Your task to perform on an android device: What's on my calendar tomorrow? Image 0: 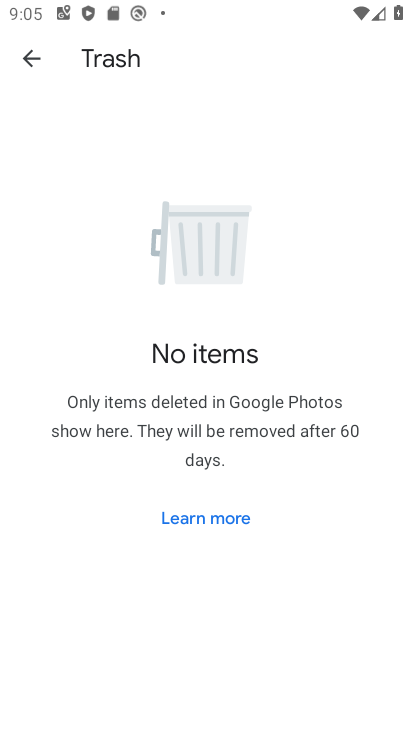
Step 0: press home button
Your task to perform on an android device: What's on my calendar tomorrow? Image 1: 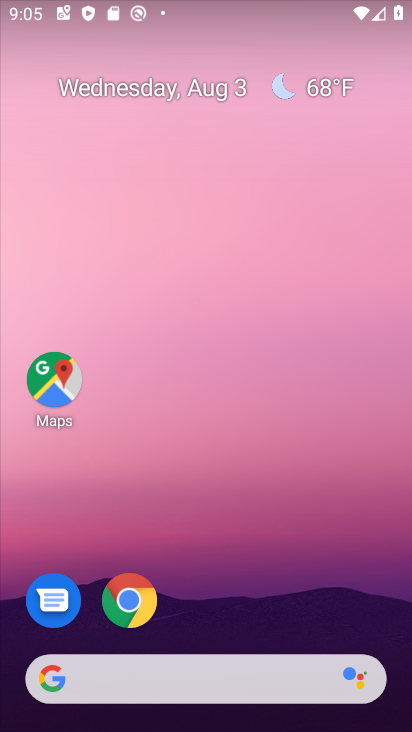
Step 1: drag from (221, 633) to (151, 31)
Your task to perform on an android device: What's on my calendar tomorrow? Image 2: 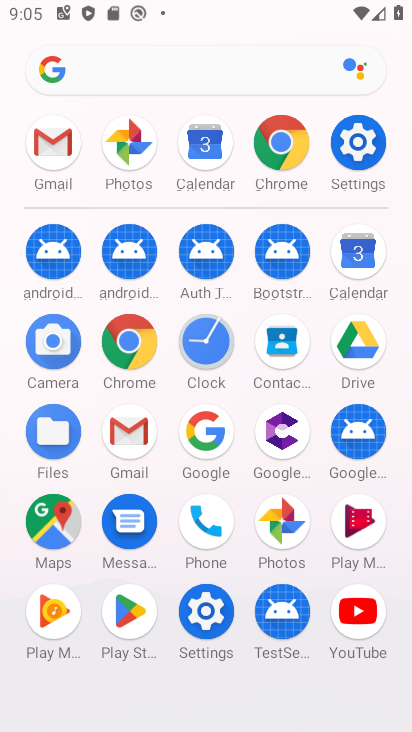
Step 2: click (364, 258)
Your task to perform on an android device: What's on my calendar tomorrow? Image 3: 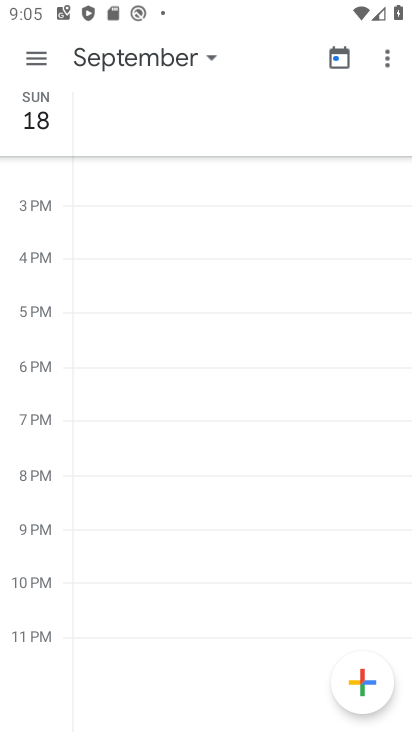
Step 3: click (144, 62)
Your task to perform on an android device: What's on my calendar tomorrow? Image 4: 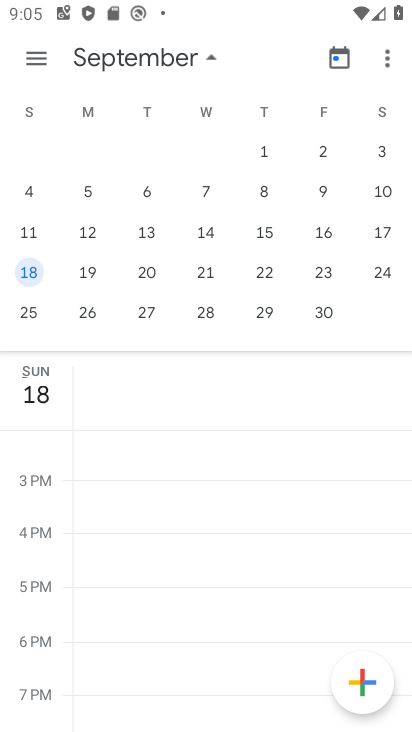
Step 4: drag from (90, 281) to (398, 328)
Your task to perform on an android device: What's on my calendar tomorrow? Image 5: 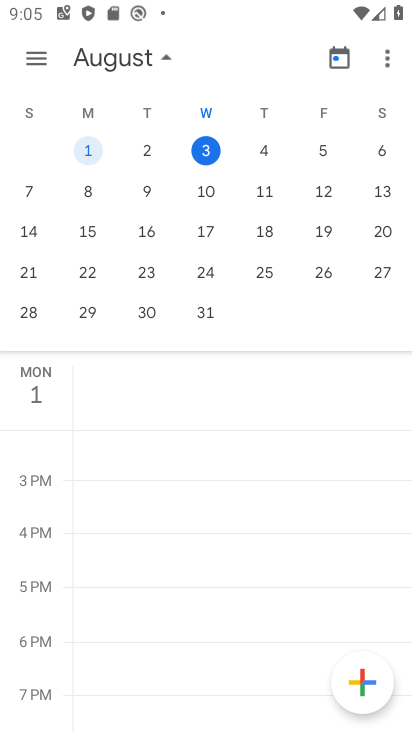
Step 5: click (206, 151)
Your task to perform on an android device: What's on my calendar tomorrow? Image 6: 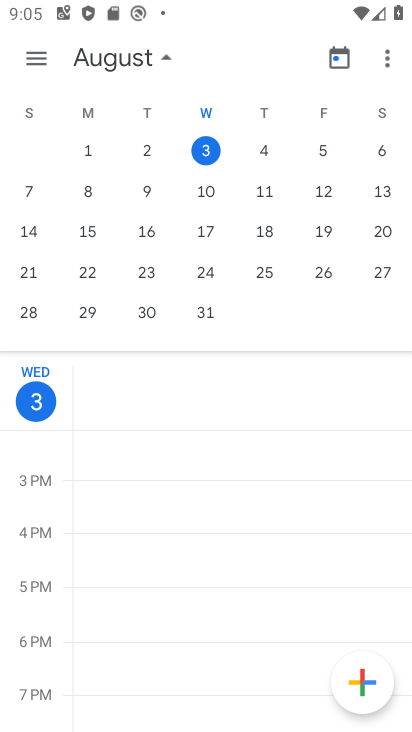
Step 6: click (39, 56)
Your task to perform on an android device: What's on my calendar tomorrow? Image 7: 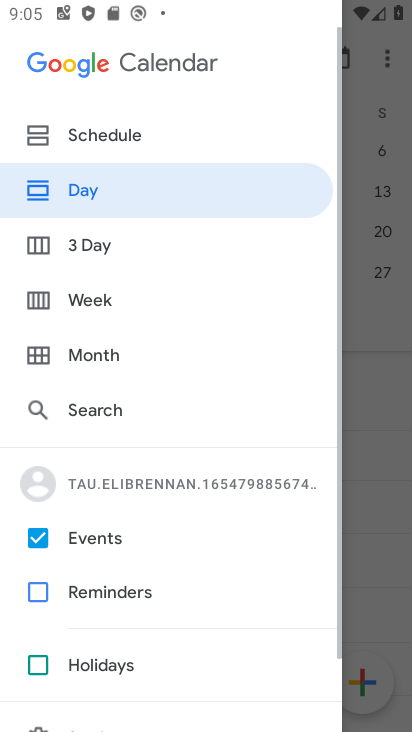
Step 7: click (94, 201)
Your task to perform on an android device: What's on my calendar tomorrow? Image 8: 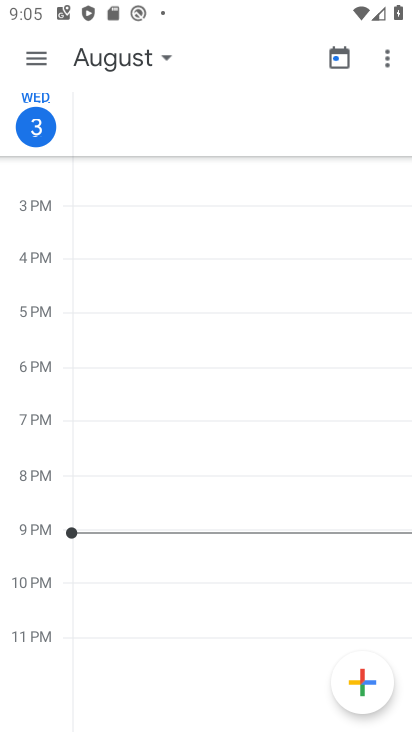
Step 8: task complete